Your task to perform on an android device: Go to Android settings Image 0: 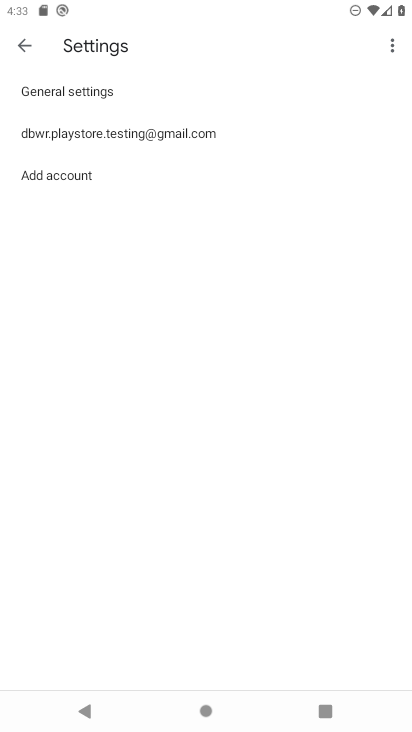
Step 0: press home button
Your task to perform on an android device: Go to Android settings Image 1: 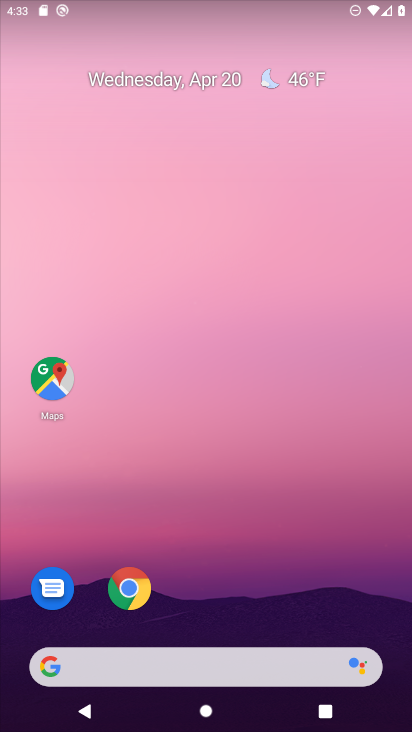
Step 1: drag from (209, 720) to (204, 148)
Your task to perform on an android device: Go to Android settings Image 2: 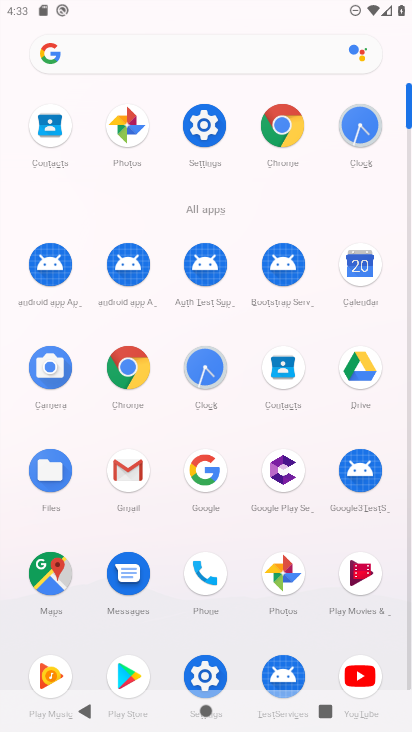
Step 2: click (206, 126)
Your task to perform on an android device: Go to Android settings Image 3: 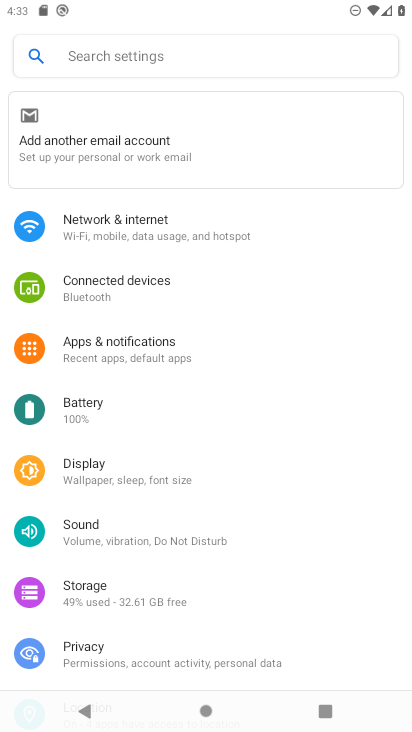
Step 3: drag from (136, 639) to (136, 150)
Your task to perform on an android device: Go to Android settings Image 4: 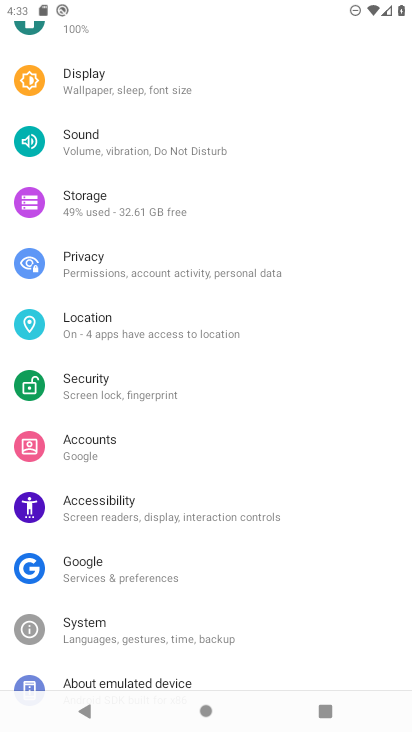
Step 4: drag from (143, 644) to (160, 103)
Your task to perform on an android device: Go to Android settings Image 5: 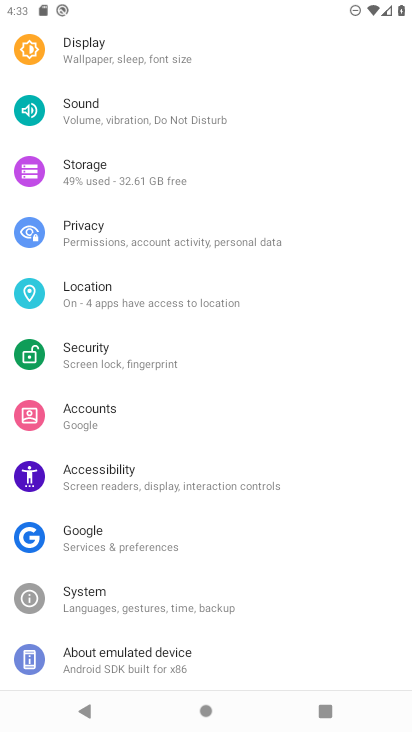
Step 5: click (114, 655)
Your task to perform on an android device: Go to Android settings Image 6: 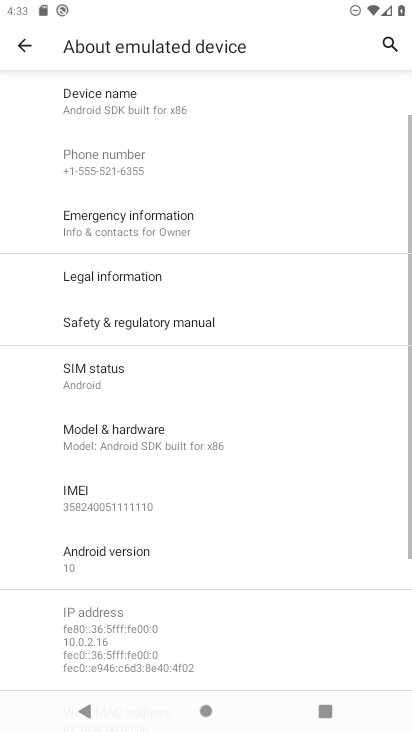
Step 6: click (106, 551)
Your task to perform on an android device: Go to Android settings Image 7: 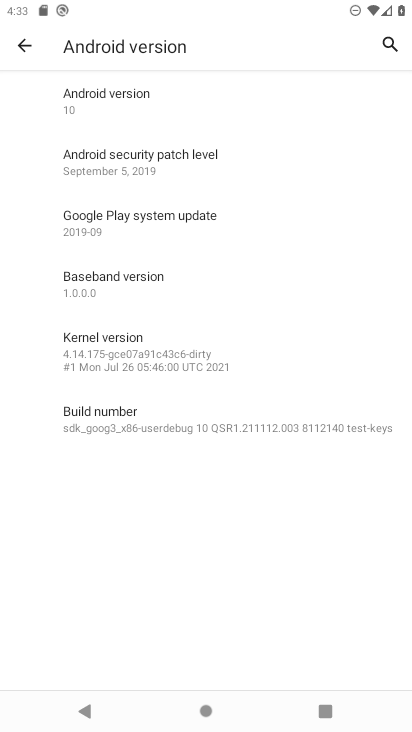
Step 7: task complete